Your task to perform on an android device: Show me recent news Image 0: 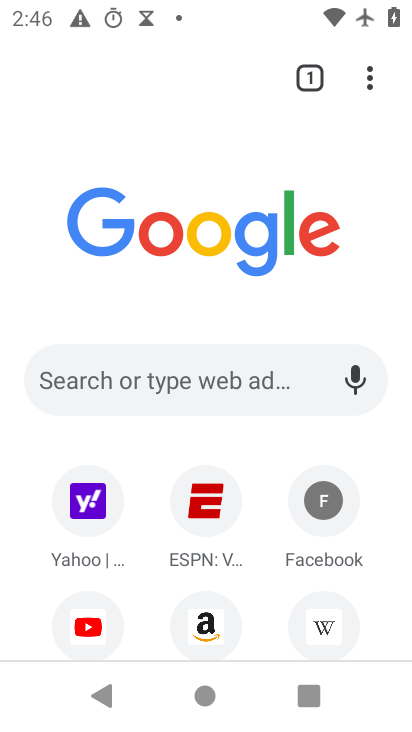
Step 0: press home button
Your task to perform on an android device: Show me recent news Image 1: 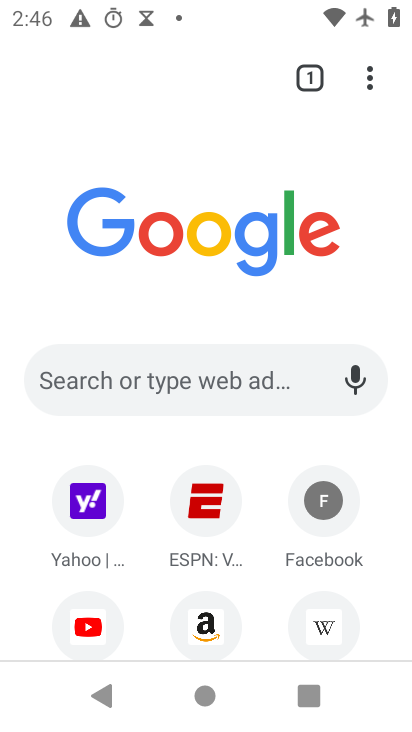
Step 1: press home button
Your task to perform on an android device: Show me recent news Image 2: 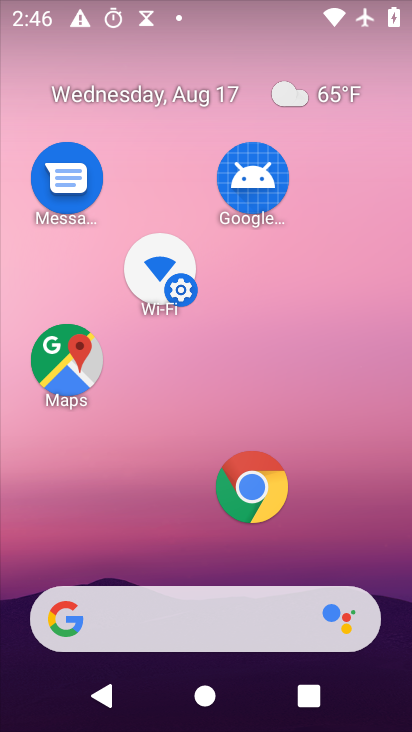
Step 2: click (64, 622)
Your task to perform on an android device: Show me recent news Image 3: 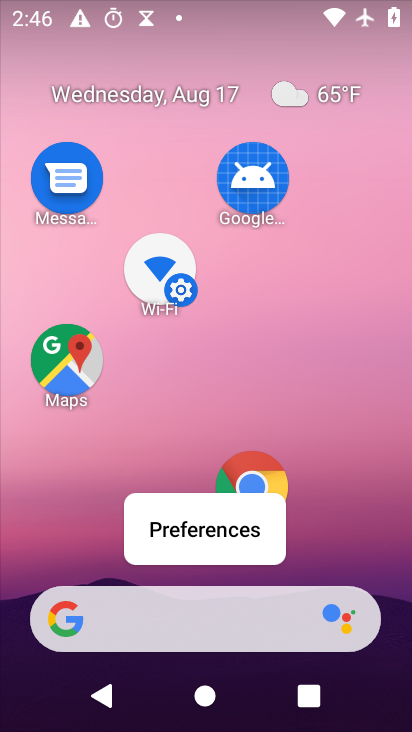
Step 3: click (64, 622)
Your task to perform on an android device: Show me recent news Image 4: 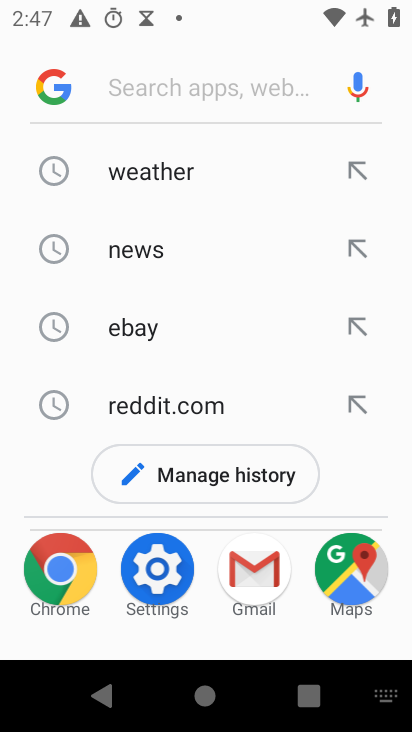
Step 4: type "recent news"
Your task to perform on an android device: Show me recent news Image 5: 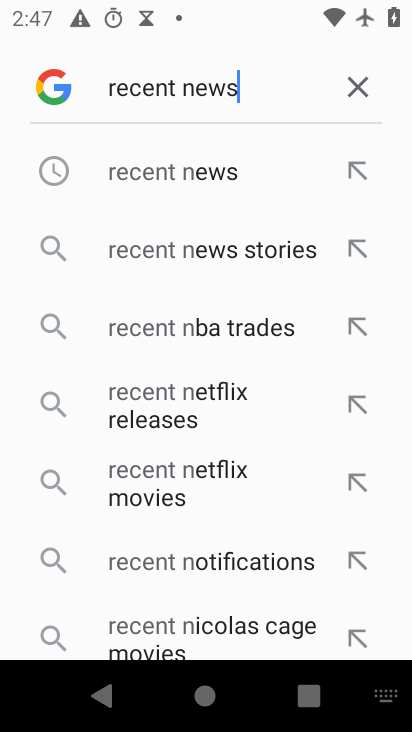
Step 5: press enter
Your task to perform on an android device: Show me recent news Image 6: 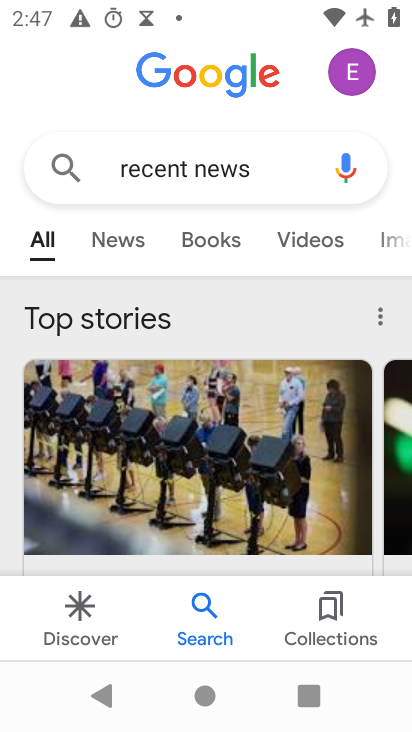
Step 6: task complete